Your task to perform on an android device: Open the stopwatch Image 0: 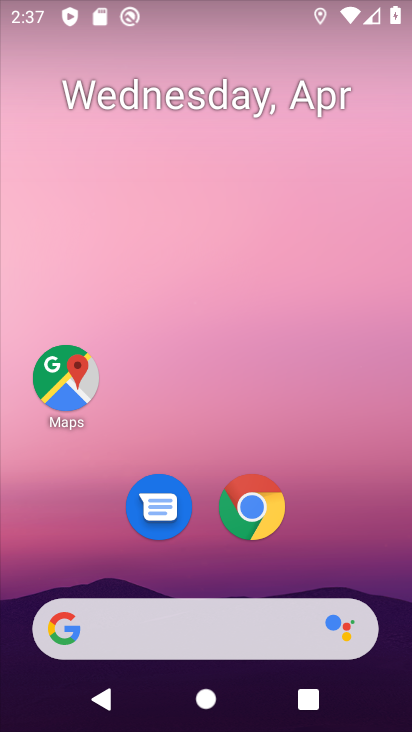
Step 0: drag from (338, 532) to (118, 84)
Your task to perform on an android device: Open the stopwatch Image 1: 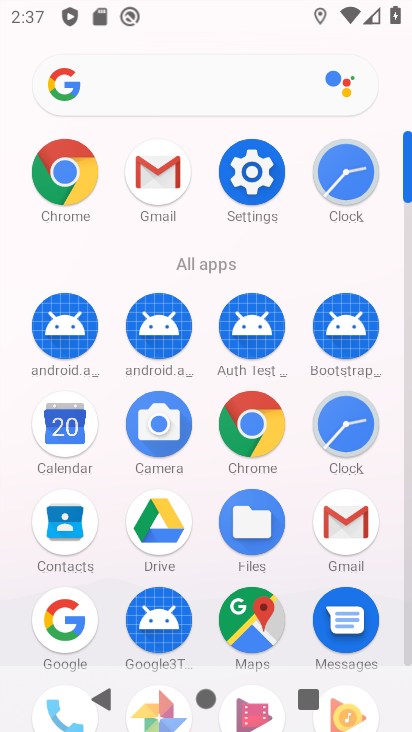
Step 1: click (359, 425)
Your task to perform on an android device: Open the stopwatch Image 2: 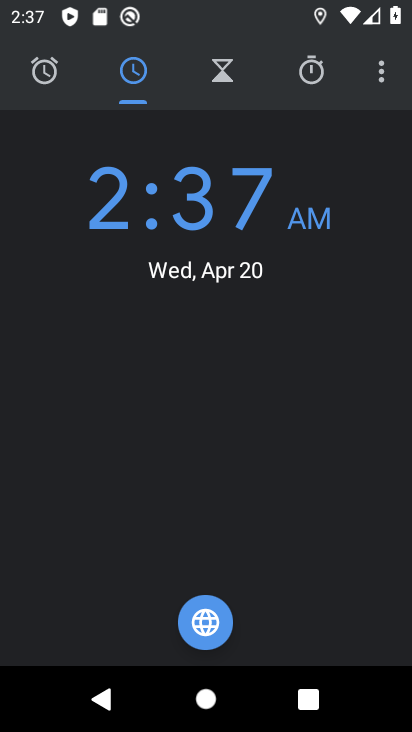
Step 2: click (310, 72)
Your task to perform on an android device: Open the stopwatch Image 3: 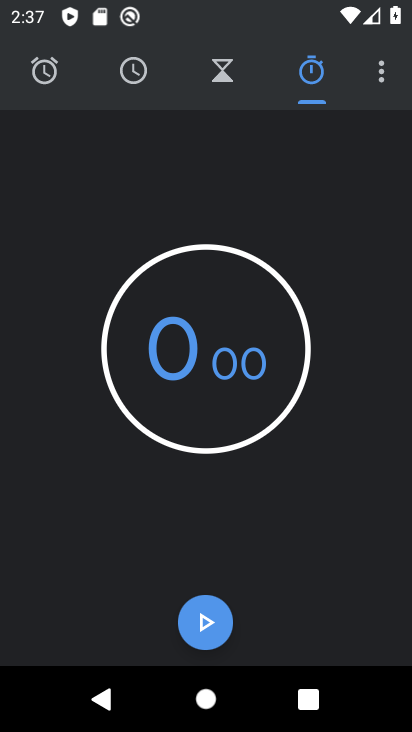
Step 3: click (207, 636)
Your task to perform on an android device: Open the stopwatch Image 4: 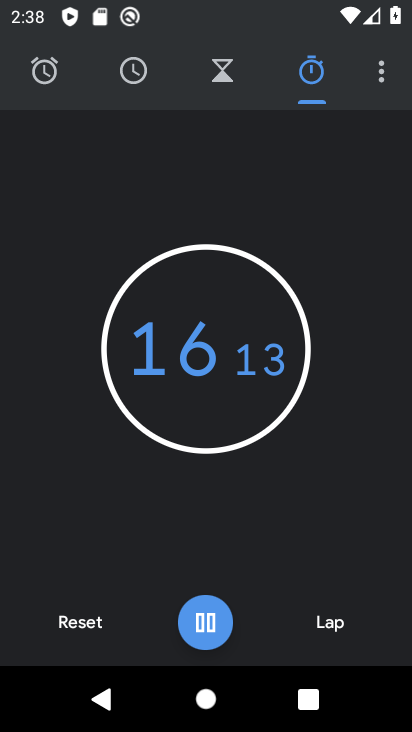
Step 4: click (224, 613)
Your task to perform on an android device: Open the stopwatch Image 5: 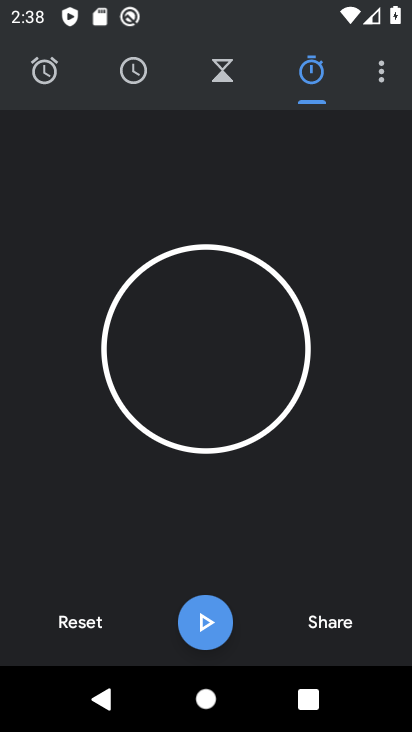
Step 5: task complete